Your task to perform on an android device: Go to privacy settings Image 0: 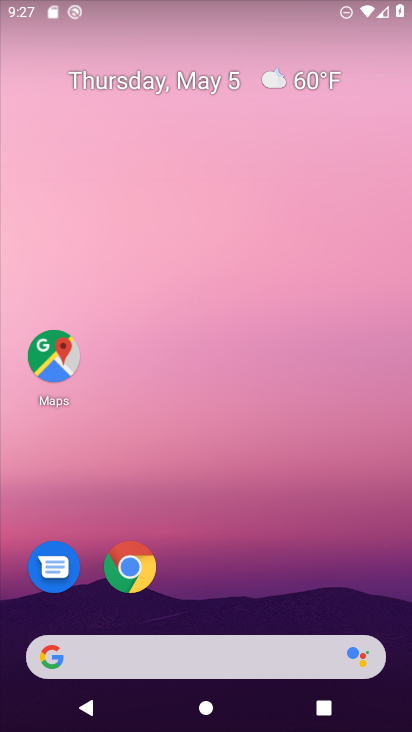
Step 0: drag from (226, 731) to (206, 265)
Your task to perform on an android device: Go to privacy settings Image 1: 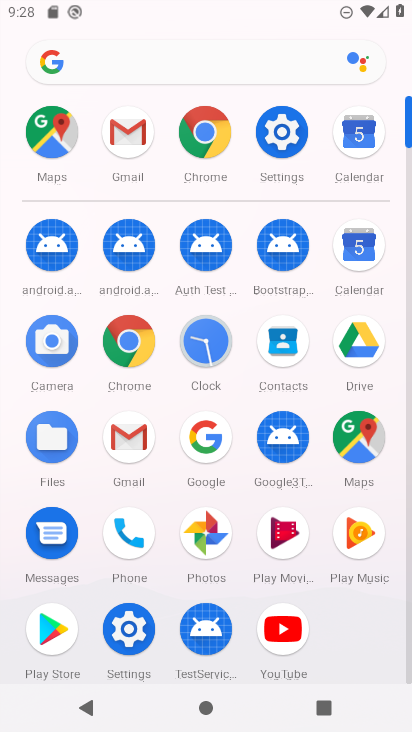
Step 1: click (284, 134)
Your task to perform on an android device: Go to privacy settings Image 2: 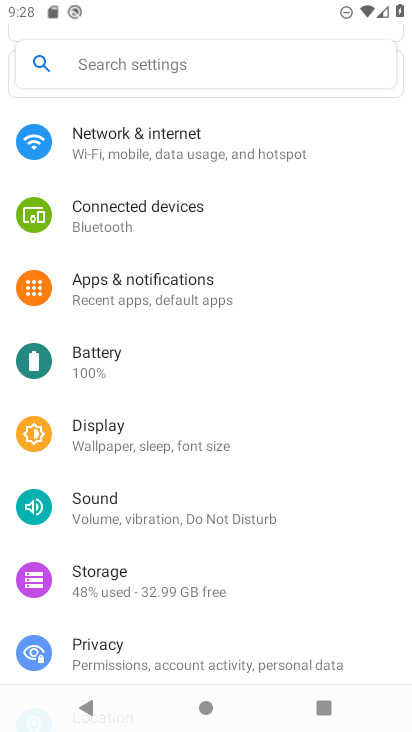
Step 2: click (100, 655)
Your task to perform on an android device: Go to privacy settings Image 3: 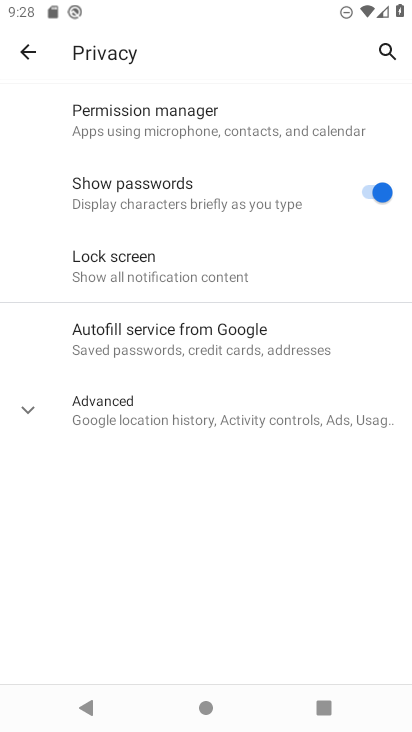
Step 3: task complete